Your task to perform on an android device: Show me recent news Image 0: 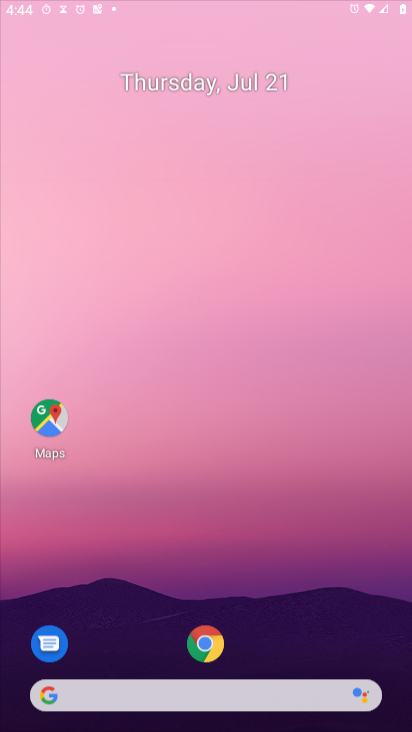
Step 0: press home button
Your task to perform on an android device: Show me recent news Image 1: 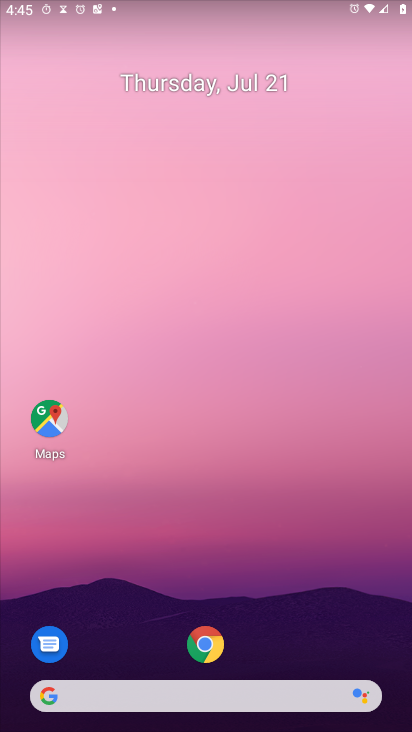
Step 1: click (46, 697)
Your task to perform on an android device: Show me recent news Image 2: 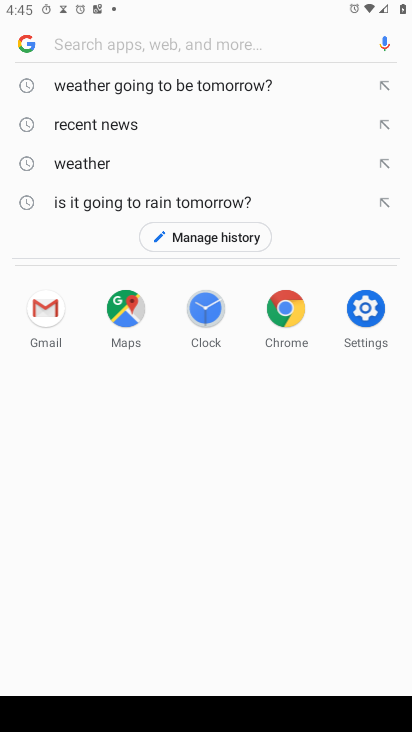
Step 2: click (100, 121)
Your task to perform on an android device: Show me recent news Image 3: 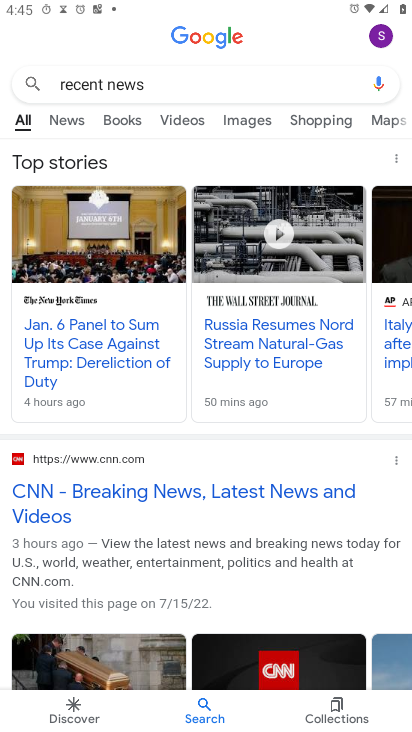
Step 3: task complete